Your task to perform on an android device: show emergency info Image 0: 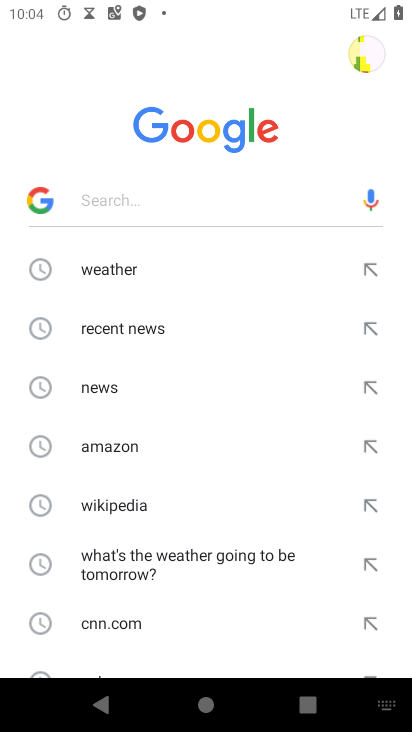
Step 0: press home button
Your task to perform on an android device: show emergency info Image 1: 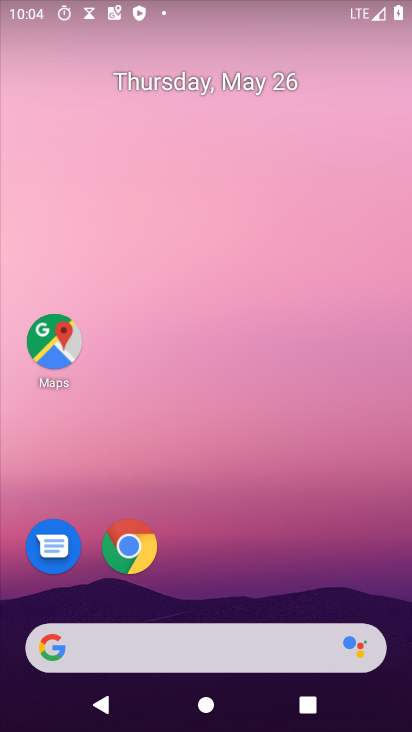
Step 1: drag from (359, 555) to (334, 179)
Your task to perform on an android device: show emergency info Image 2: 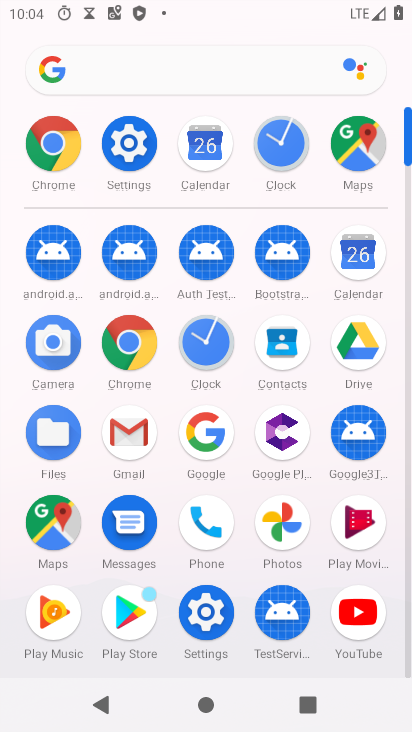
Step 2: drag from (317, 570) to (317, 286)
Your task to perform on an android device: show emergency info Image 3: 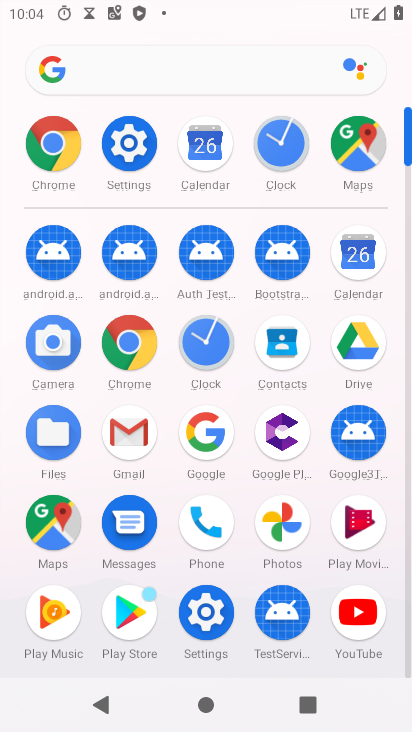
Step 3: click (209, 636)
Your task to perform on an android device: show emergency info Image 4: 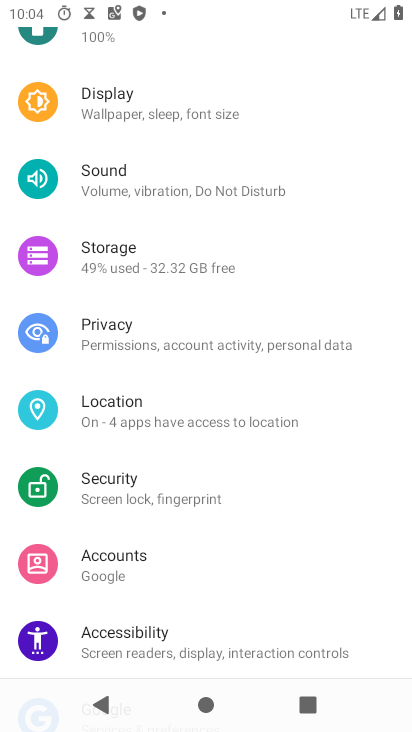
Step 4: drag from (223, 655) to (250, 367)
Your task to perform on an android device: show emergency info Image 5: 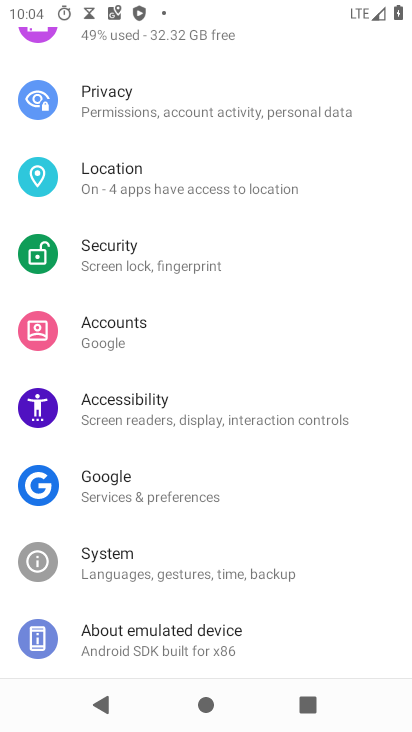
Step 5: click (213, 630)
Your task to perform on an android device: show emergency info Image 6: 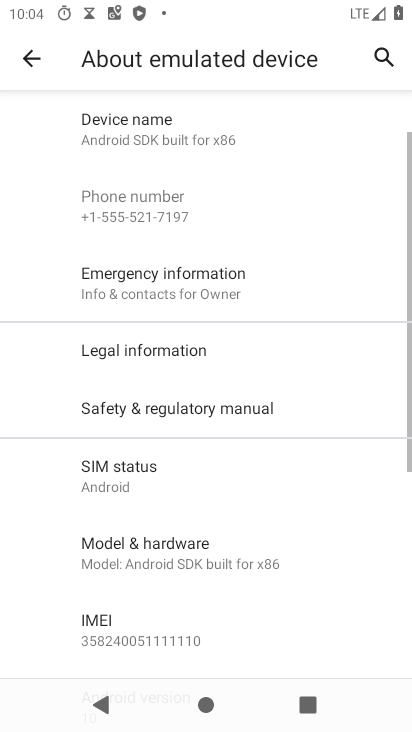
Step 6: click (192, 272)
Your task to perform on an android device: show emergency info Image 7: 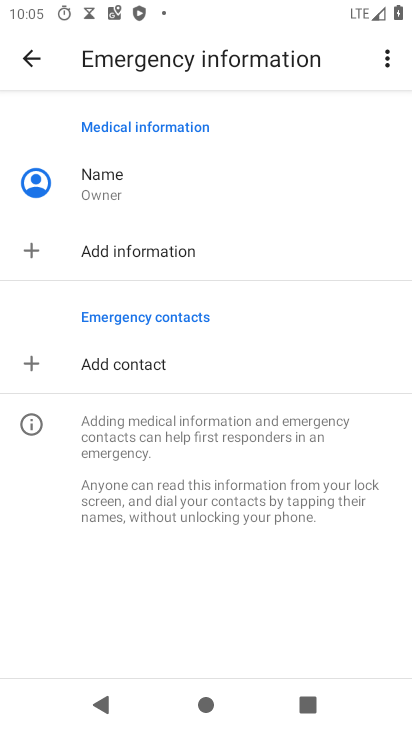
Step 7: task complete